Your task to perform on an android device: change the clock style Image 0: 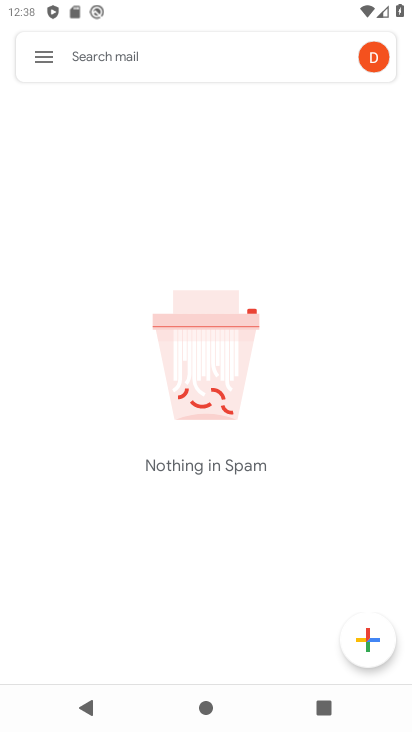
Step 0: press home button
Your task to perform on an android device: change the clock style Image 1: 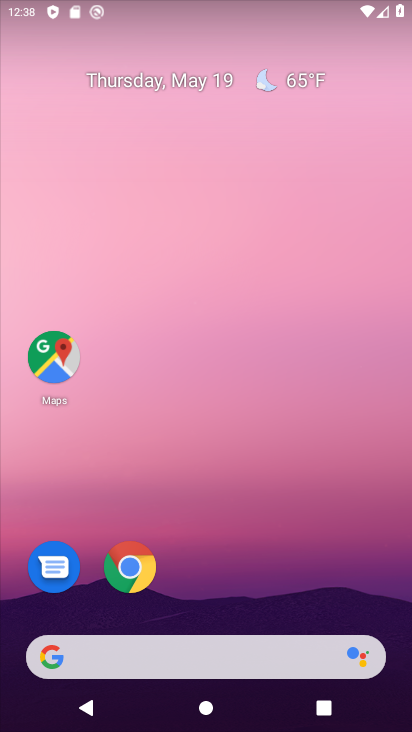
Step 1: drag from (272, 578) to (315, 88)
Your task to perform on an android device: change the clock style Image 2: 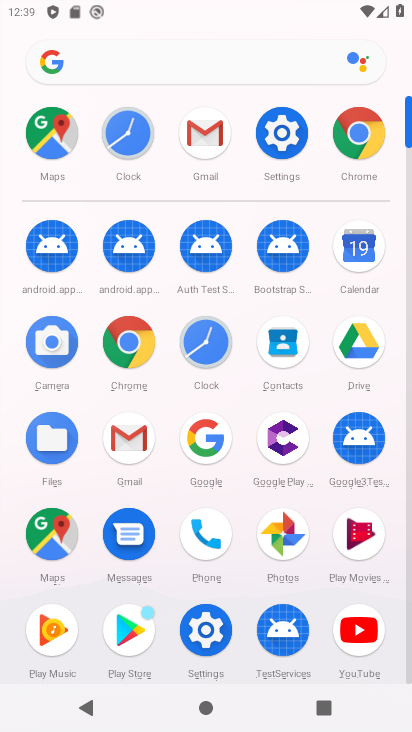
Step 2: click (213, 345)
Your task to perform on an android device: change the clock style Image 3: 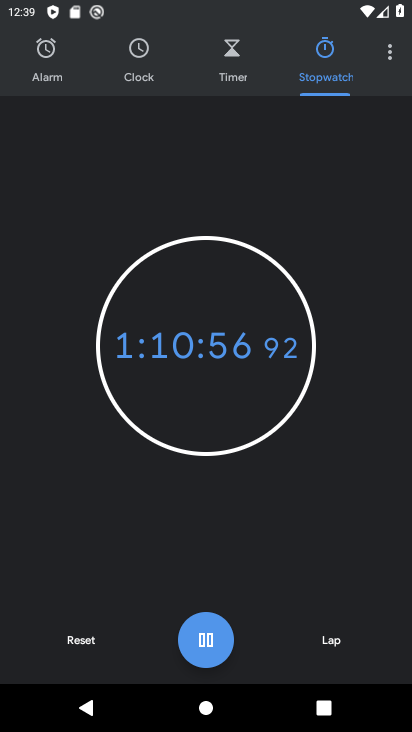
Step 3: click (397, 55)
Your task to perform on an android device: change the clock style Image 4: 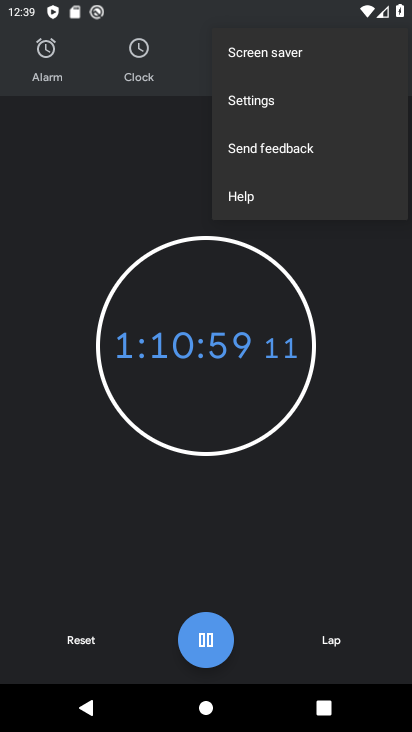
Step 4: click (285, 102)
Your task to perform on an android device: change the clock style Image 5: 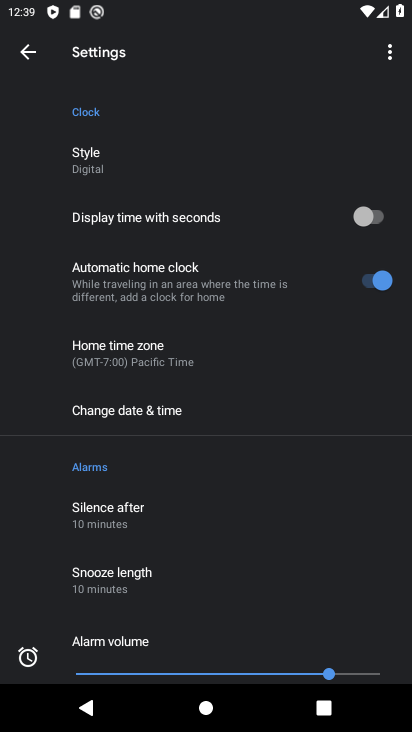
Step 5: click (101, 172)
Your task to perform on an android device: change the clock style Image 6: 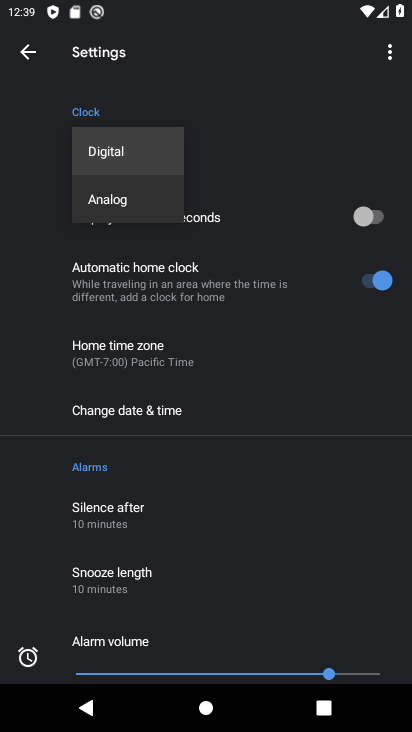
Step 6: click (132, 198)
Your task to perform on an android device: change the clock style Image 7: 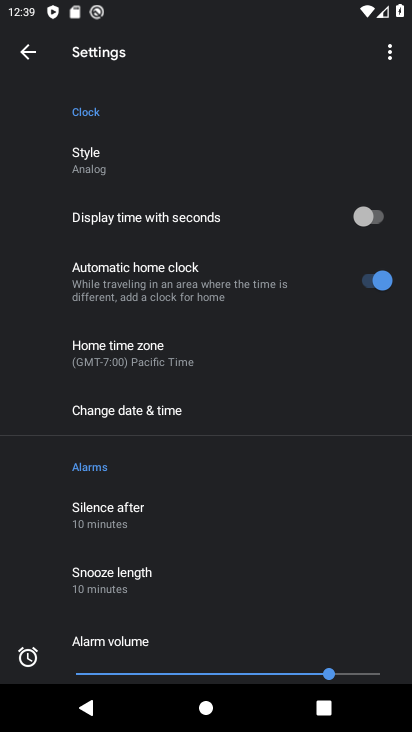
Step 7: task complete